Your task to perform on an android device: Do I have any events today? Image 0: 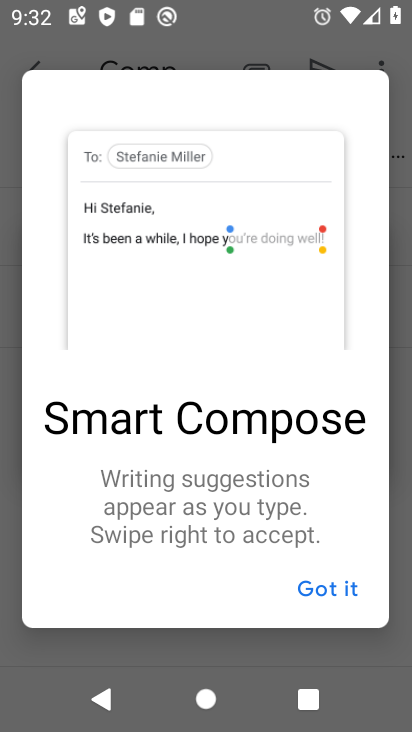
Step 0: press home button
Your task to perform on an android device: Do I have any events today? Image 1: 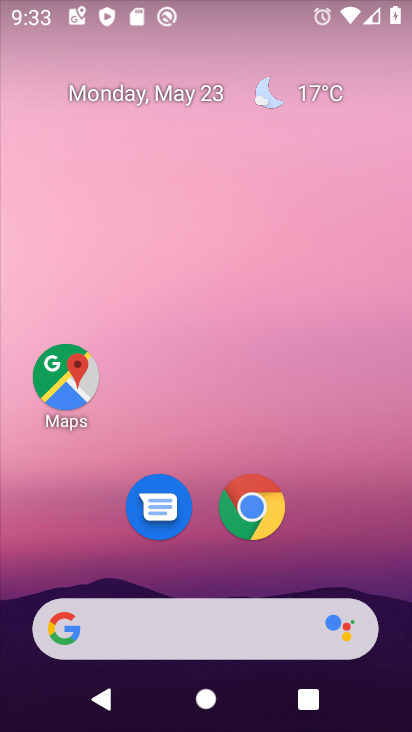
Step 1: drag from (359, 581) to (263, 3)
Your task to perform on an android device: Do I have any events today? Image 2: 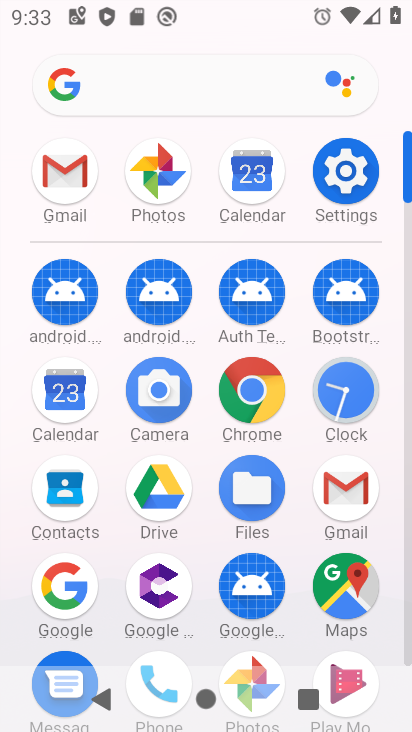
Step 2: click (52, 403)
Your task to perform on an android device: Do I have any events today? Image 3: 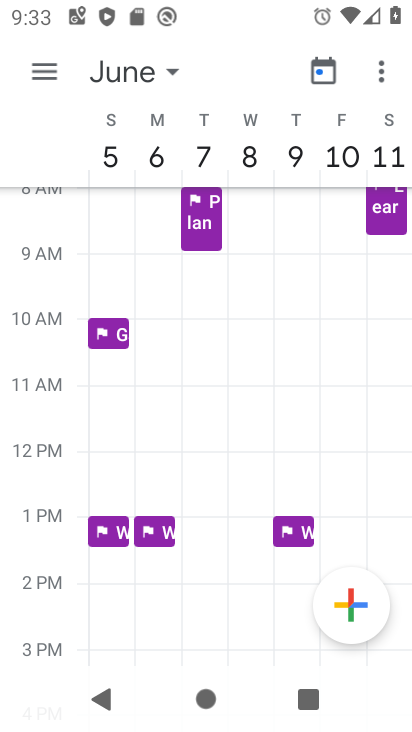
Step 3: click (38, 79)
Your task to perform on an android device: Do I have any events today? Image 4: 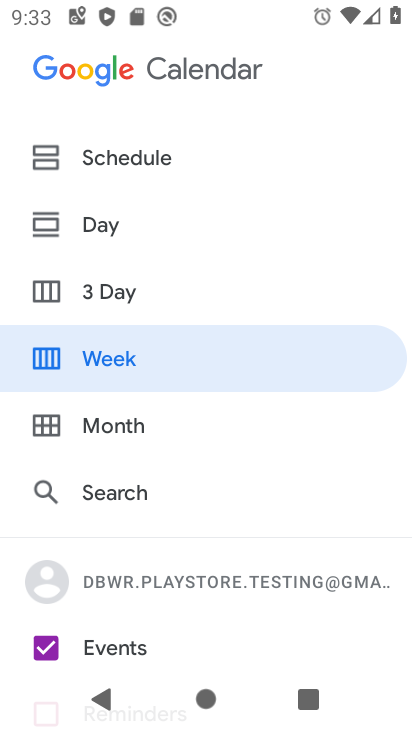
Step 4: click (66, 164)
Your task to perform on an android device: Do I have any events today? Image 5: 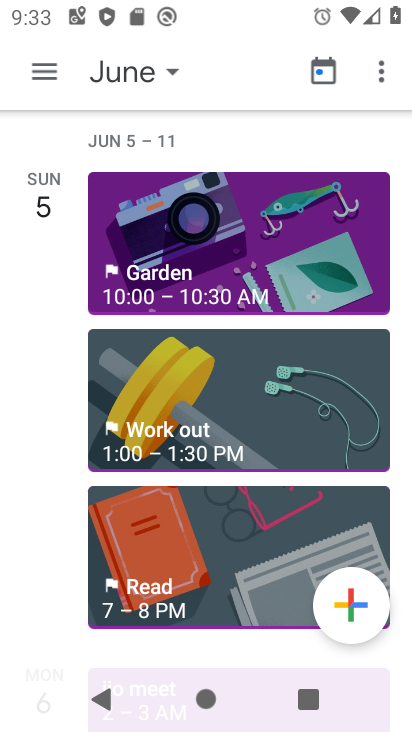
Step 5: click (331, 79)
Your task to perform on an android device: Do I have any events today? Image 6: 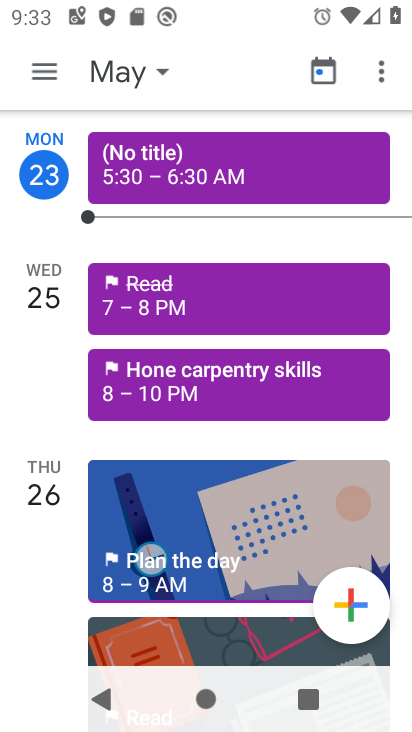
Step 6: click (171, 163)
Your task to perform on an android device: Do I have any events today? Image 7: 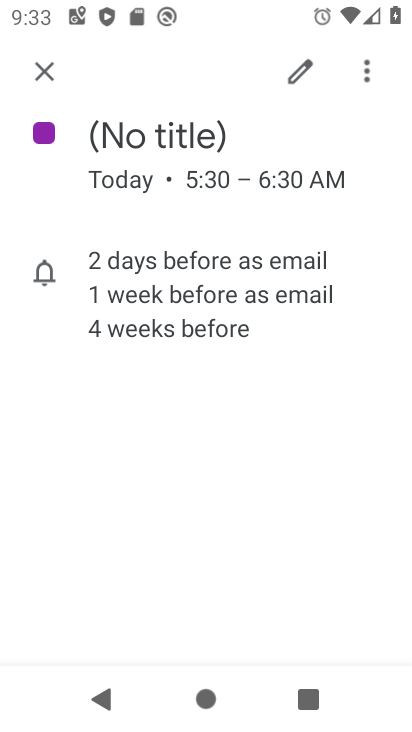
Step 7: task complete